Your task to perform on an android device: set an alarm Image 0: 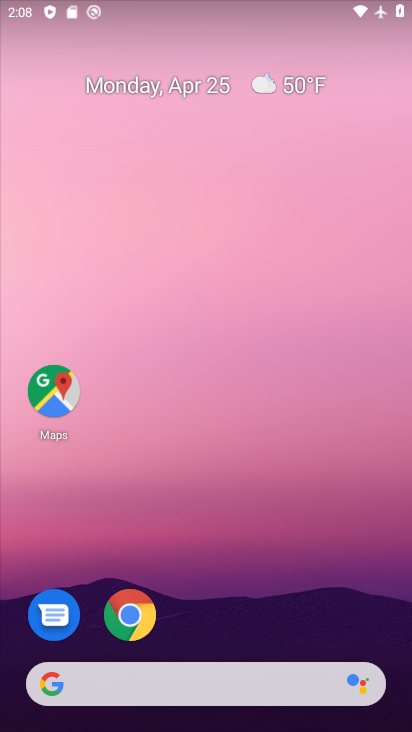
Step 0: drag from (242, 524) to (249, 99)
Your task to perform on an android device: set an alarm Image 1: 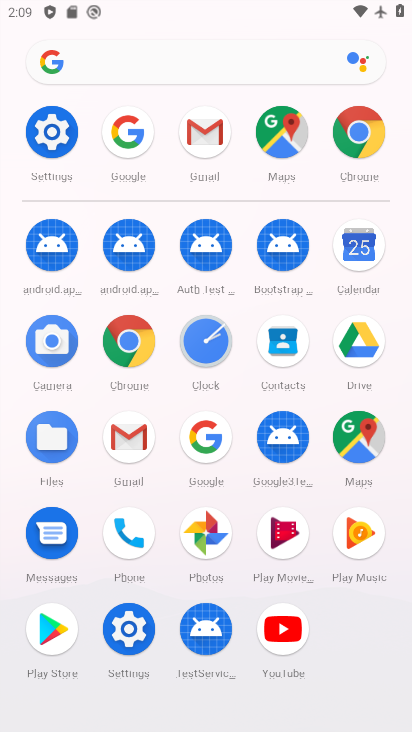
Step 1: click (214, 337)
Your task to perform on an android device: set an alarm Image 2: 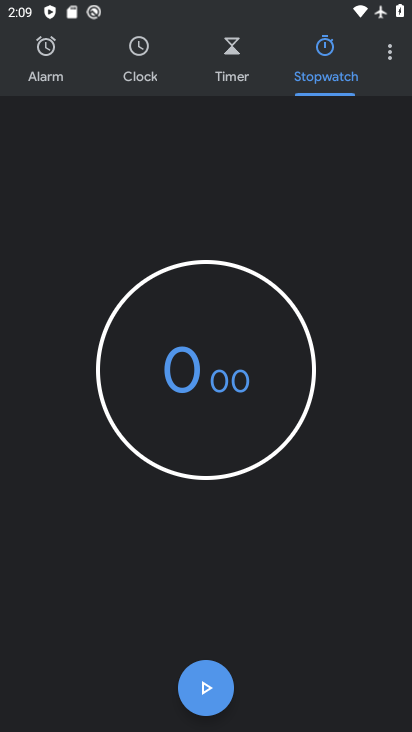
Step 2: click (46, 66)
Your task to perform on an android device: set an alarm Image 3: 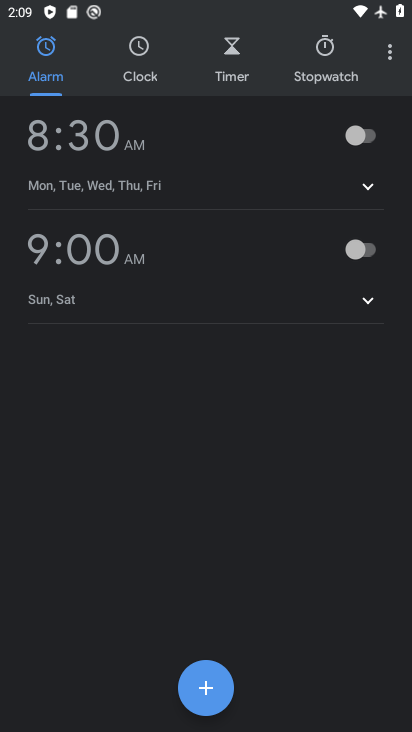
Step 3: click (198, 695)
Your task to perform on an android device: set an alarm Image 4: 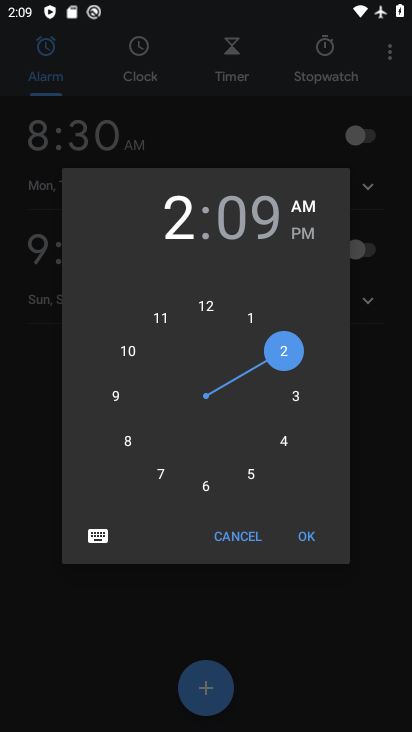
Step 4: click (215, 485)
Your task to perform on an android device: set an alarm Image 5: 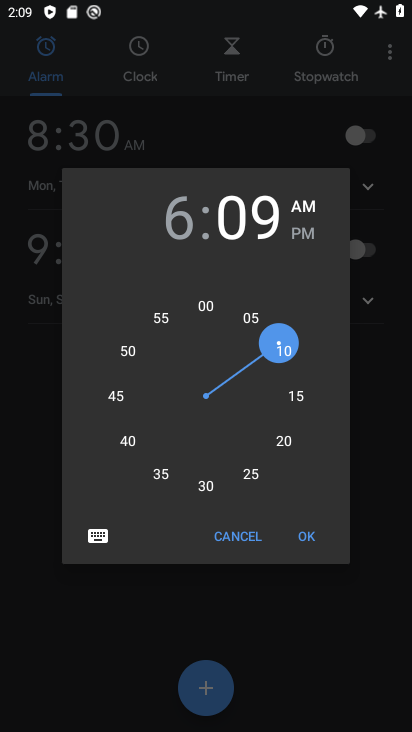
Step 5: click (316, 226)
Your task to perform on an android device: set an alarm Image 6: 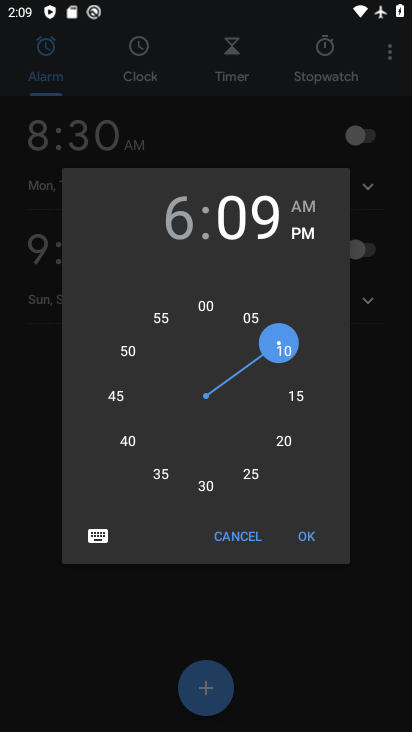
Step 6: click (306, 538)
Your task to perform on an android device: set an alarm Image 7: 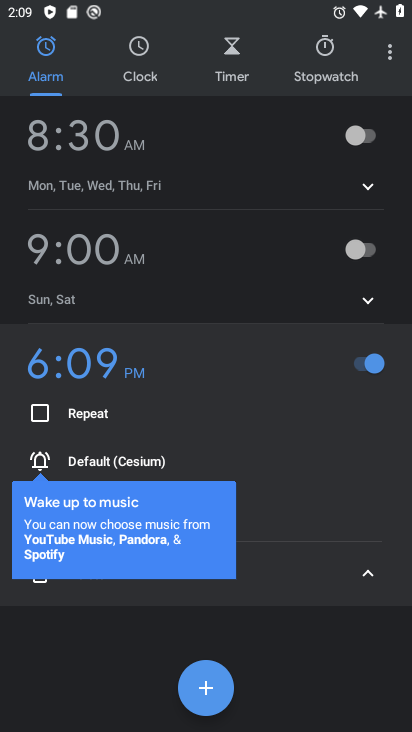
Step 7: task complete